Your task to perform on an android device: turn on location history Image 0: 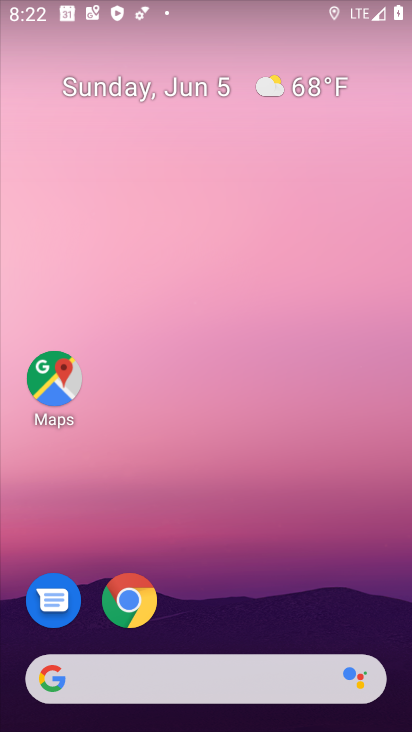
Step 0: drag from (204, 493) to (236, 15)
Your task to perform on an android device: turn on location history Image 1: 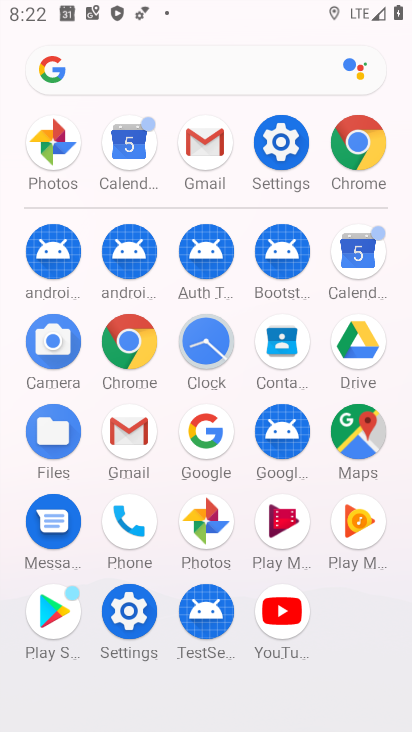
Step 1: click (294, 145)
Your task to perform on an android device: turn on location history Image 2: 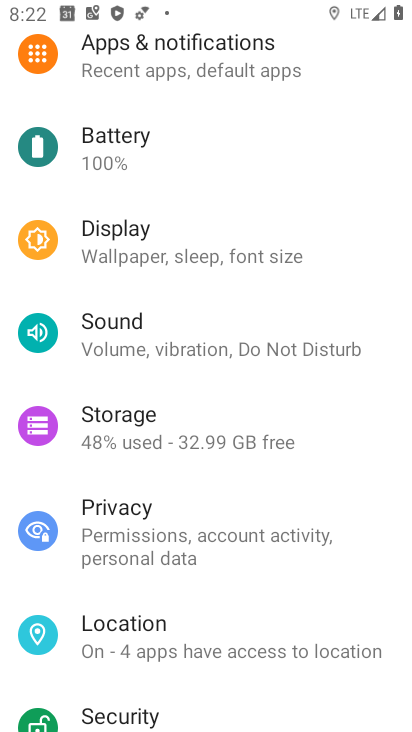
Step 2: click (195, 644)
Your task to perform on an android device: turn on location history Image 3: 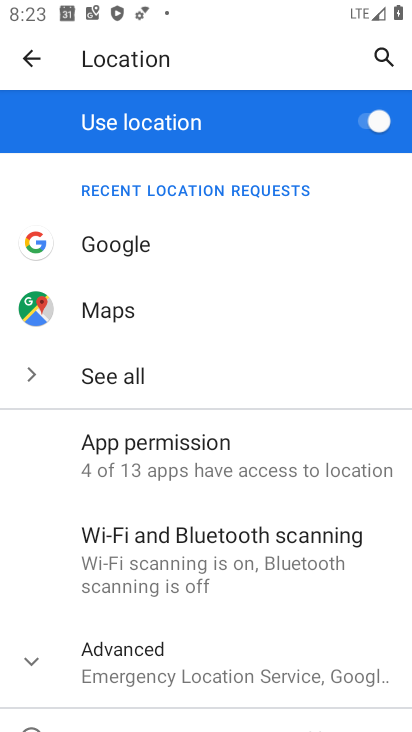
Step 3: click (31, 662)
Your task to perform on an android device: turn on location history Image 4: 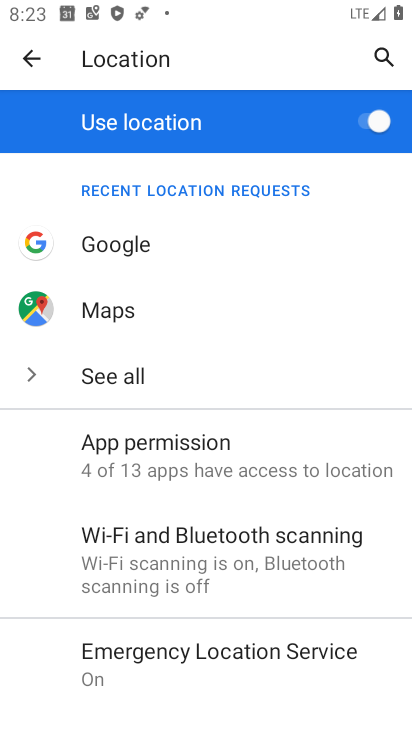
Step 4: drag from (243, 674) to (274, 323)
Your task to perform on an android device: turn on location history Image 5: 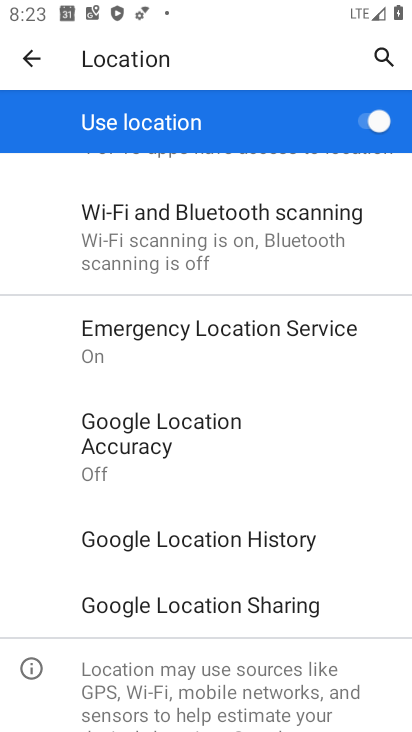
Step 5: click (256, 532)
Your task to perform on an android device: turn on location history Image 6: 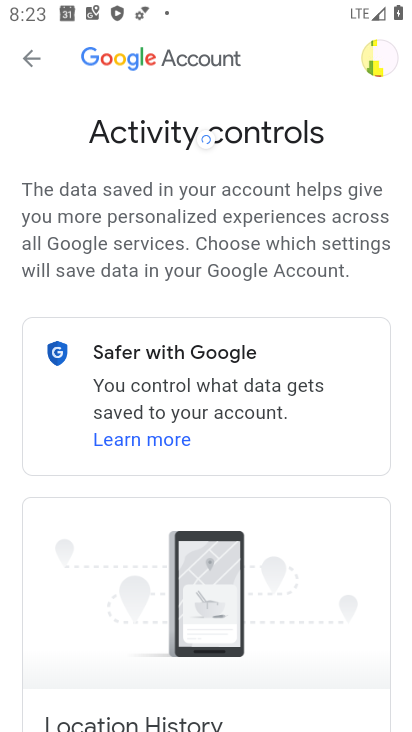
Step 6: drag from (321, 529) to (345, 79)
Your task to perform on an android device: turn on location history Image 7: 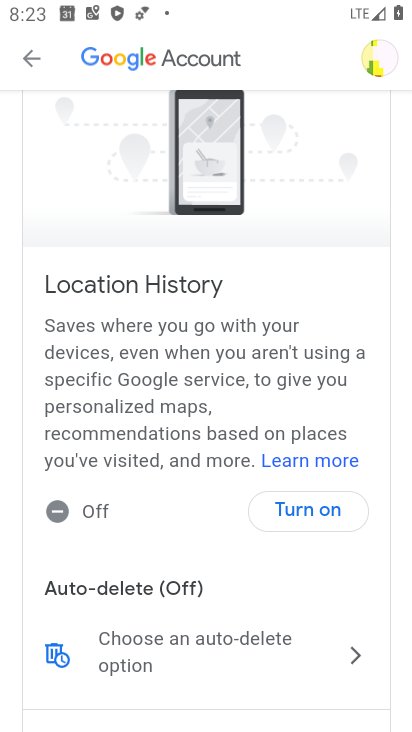
Step 7: click (321, 512)
Your task to perform on an android device: turn on location history Image 8: 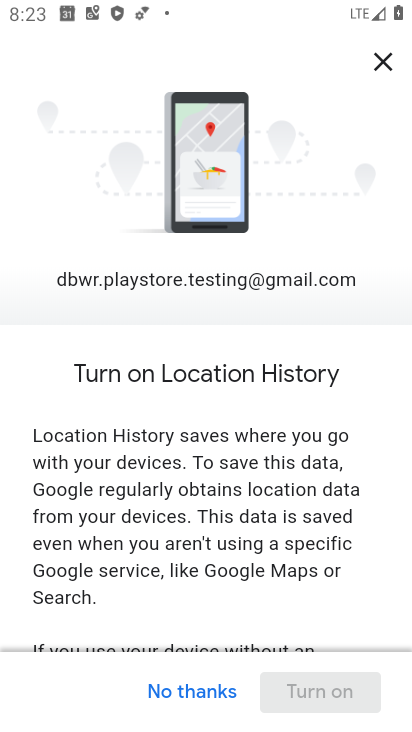
Step 8: drag from (267, 566) to (269, 116)
Your task to perform on an android device: turn on location history Image 9: 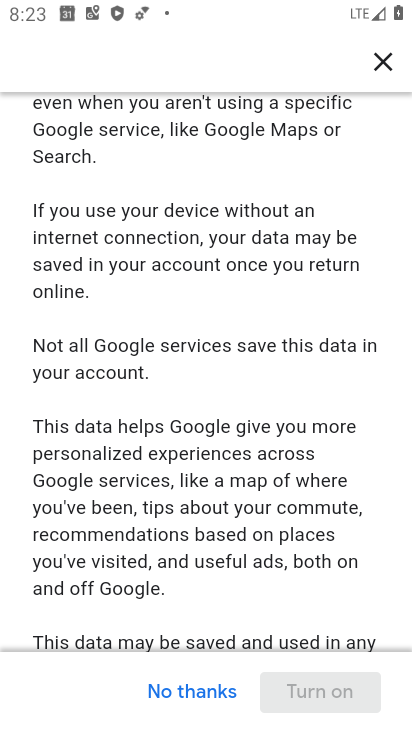
Step 9: drag from (220, 489) to (243, 152)
Your task to perform on an android device: turn on location history Image 10: 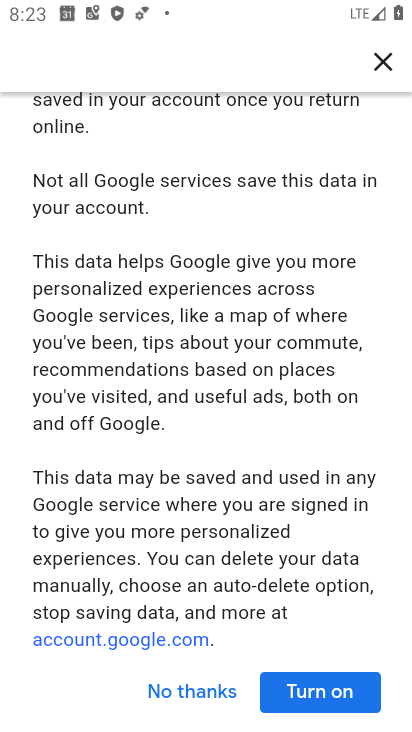
Step 10: click (334, 688)
Your task to perform on an android device: turn on location history Image 11: 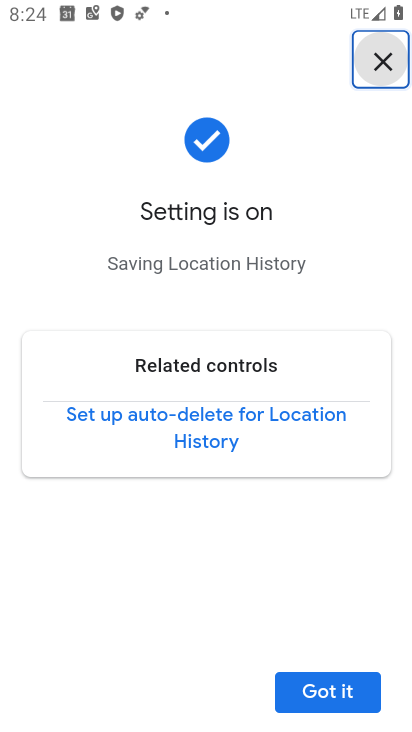
Step 11: click (355, 685)
Your task to perform on an android device: turn on location history Image 12: 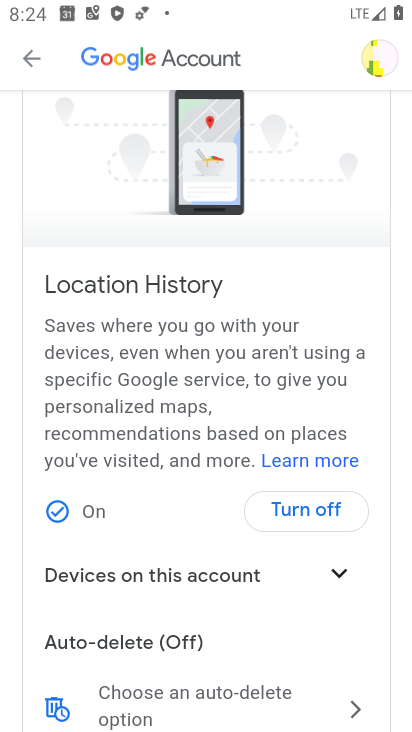
Step 12: task complete